Your task to perform on an android device: change notification settings in the gmail app Image 0: 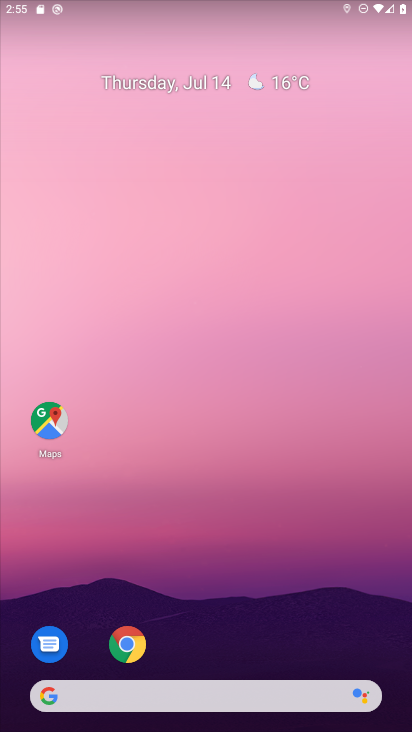
Step 0: drag from (211, 623) to (222, 389)
Your task to perform on an android device: change notification settings in the gmail app Image 1: 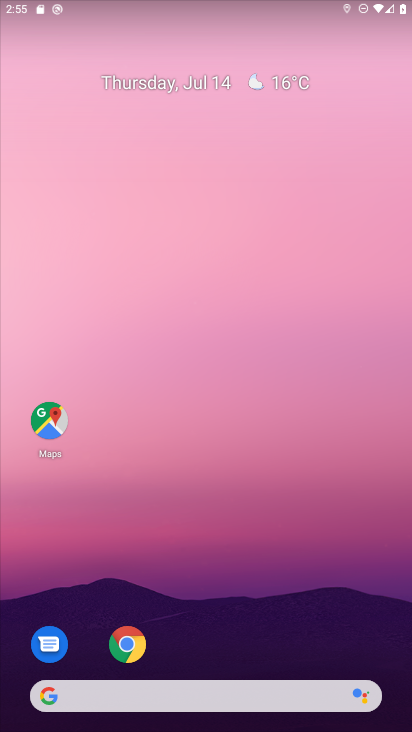
Step 1: drag from (221, 651) to (220, 171)
Your task to perform on an android device: change notification settings in the gmail app Image 2: 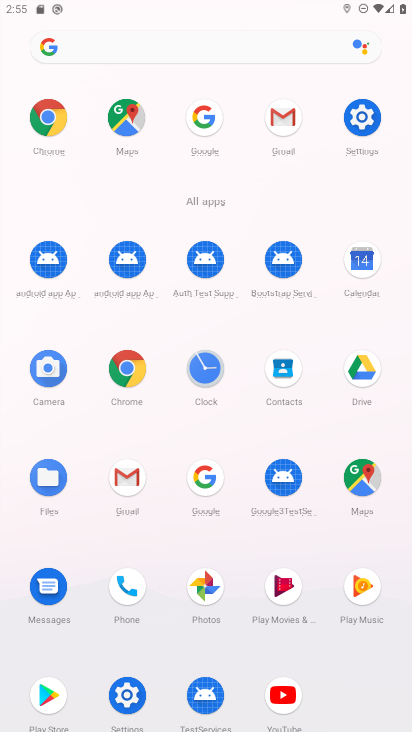
Step 2: click (277, 112)
Your task to perform on an android device: change notification settings in the gmail app Image 3: 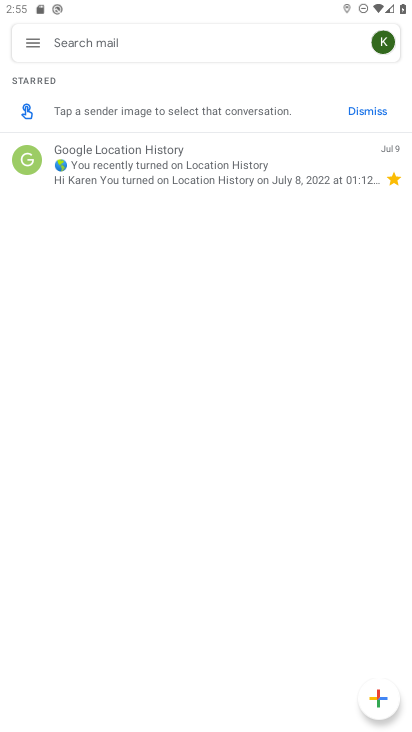
Step 3: click (36, 52)
Your task to perform on an android device: change notification settings in the gmail app Image 4: 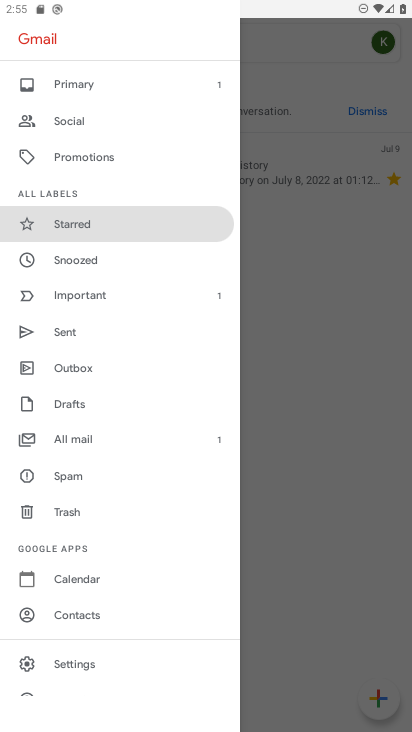
Step 4: click (94, 657)
Your task to perform on an android device: change notification settings in the gmail app Image 5: 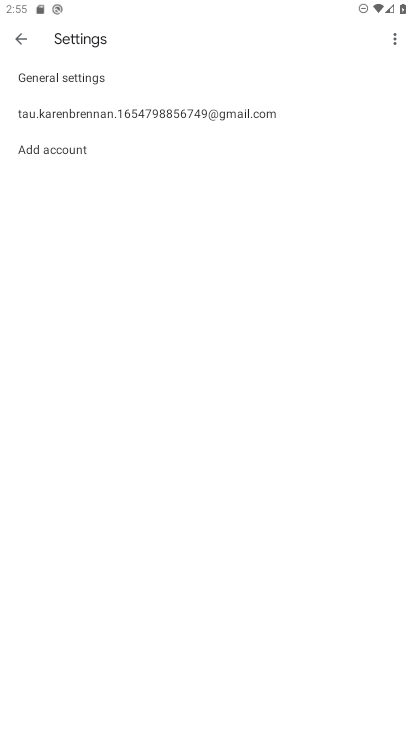
Step 5: click (132, 107)
Your task to perform on an android device: change notification settings in the gmail app Image 6: 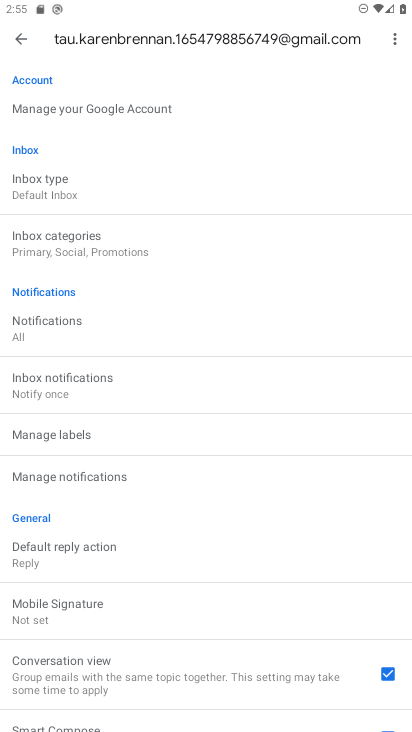
Step 6: click (148, 472)
Your task to perform on an android device: change notification settings in the gmail app Image 7: 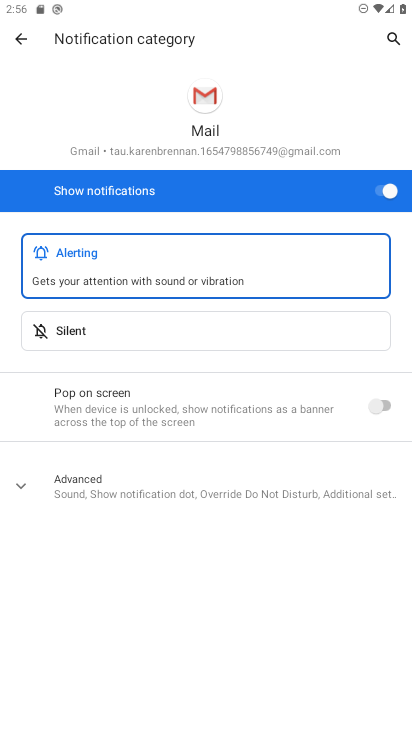
Step 7: click (373, 198)
Your task to perform on an android device: change notification settings in the gmail app Image 8: 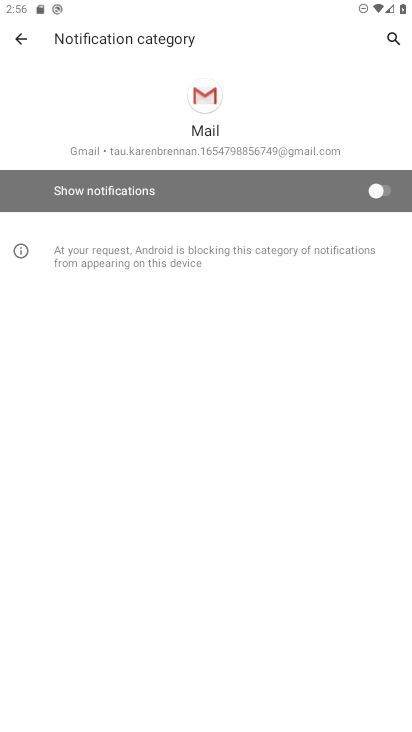
Step 8: task complete